Your task to perform on an android device: Go to display settings Image 0: 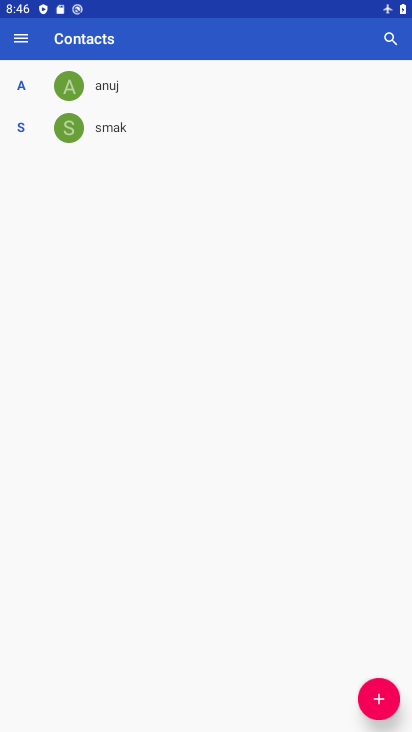
Step 0: press home button
Your task to perform on an android device: Go to display settings Image 1: 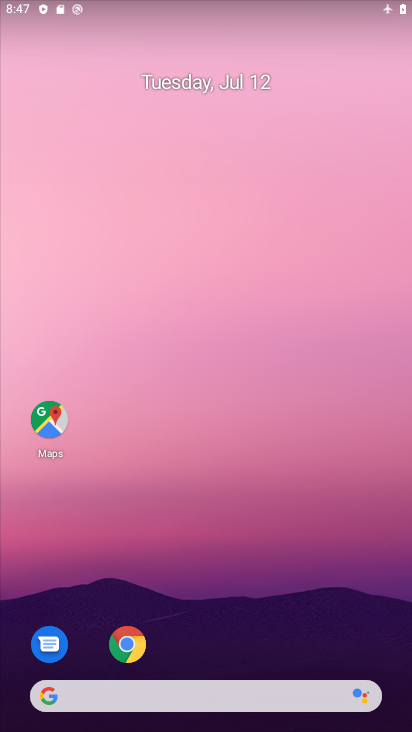
Step 1: drag from (235, 641) to (241, 137)
Your task to perform on an android device: Go to display settings Image 2: 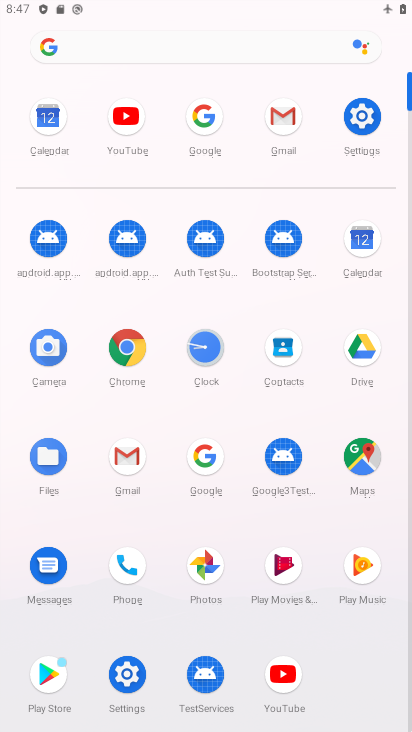
Step 2: click (364, 119)
Your task to perform on an android device: Go to display settings Image 3: 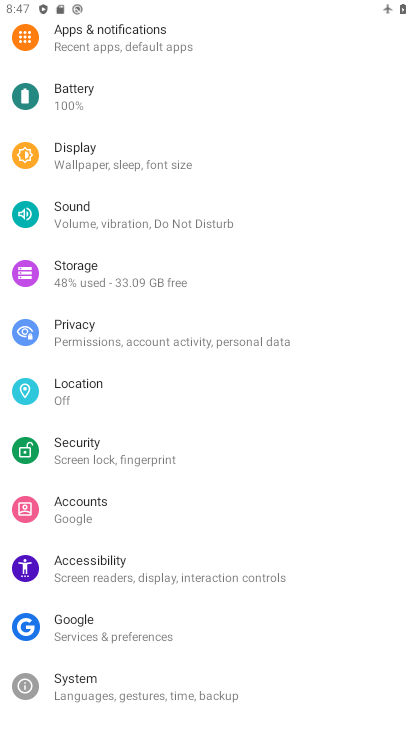
Step 3: click (157, 161)
Your task to perform on an android device: Go to display settings Image 4: 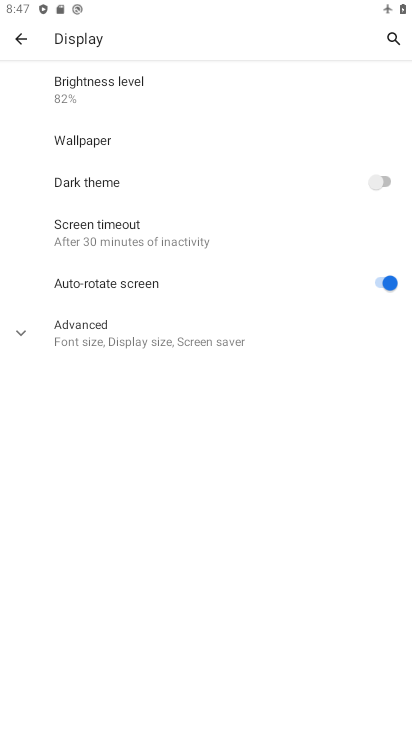
Step 4: task complete